Your task to perform on an android device: Open Google Chrome and click the shortcut for Amazon.com Image 0: 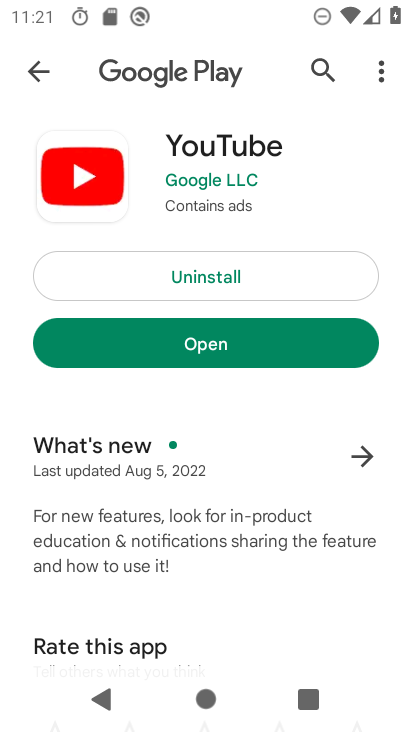
Step 0: press home button
Your task to perform on an android device: Open Google Chrome and click the shortcut for Amazon.com Image 1: 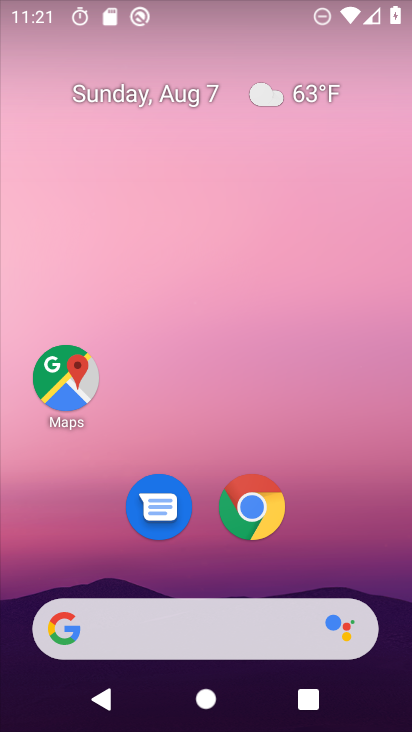
Step 1: drag from (325, 508) to (287, 49)
Your task to perform on an android device: Open Google Chrome and click the shortcut for Amazon.com Image 2: 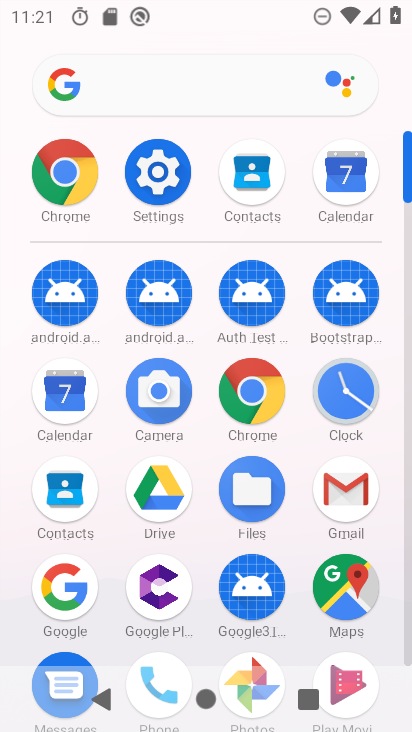
Step 2: click (246, 391)
Your task to perform on an android device: Open Google Chrome and click the shortcut for Amazon.com Image 3: 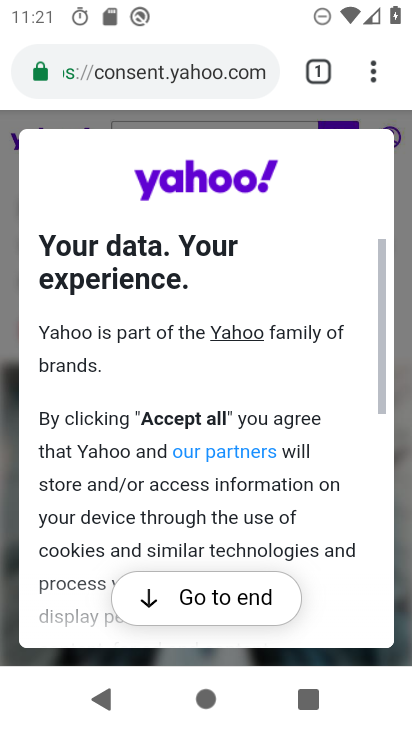
Step 3: click (244, 75)
Your task to perform on an android device: Open Google Chrome and click the shortcut for Amazon.com Image 4: 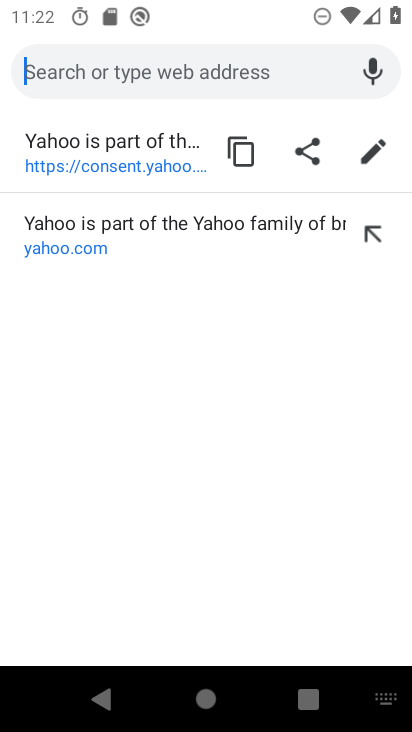
Step 4: press back button
Your task to perform on an android device: Open Google Chrome and click the shortcut for Amazon.com Image 5: 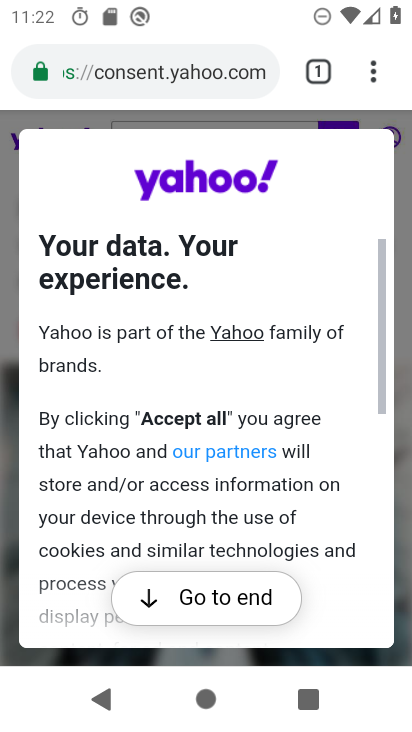
Step 5: click (381, 70)
Your task to perform on an android device: Open Google Chrome and click the shortcut for Amazon.com Image 6: 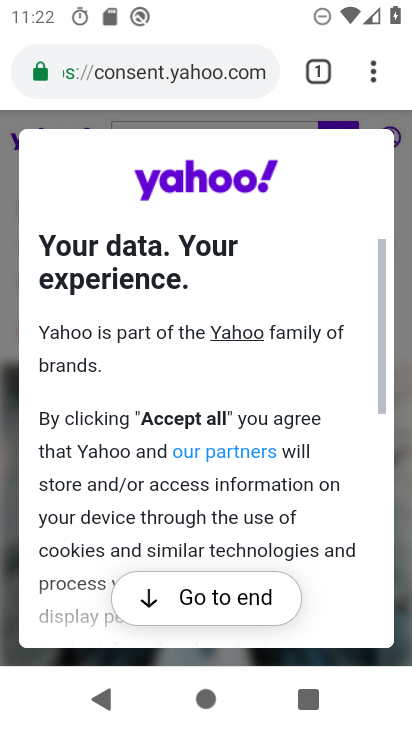
Step 6: drag from (377, 72) to (231, 144)
Your task to perform on an android device: Open Google Chrome and click the shortcut for Amazon.com Image 7: 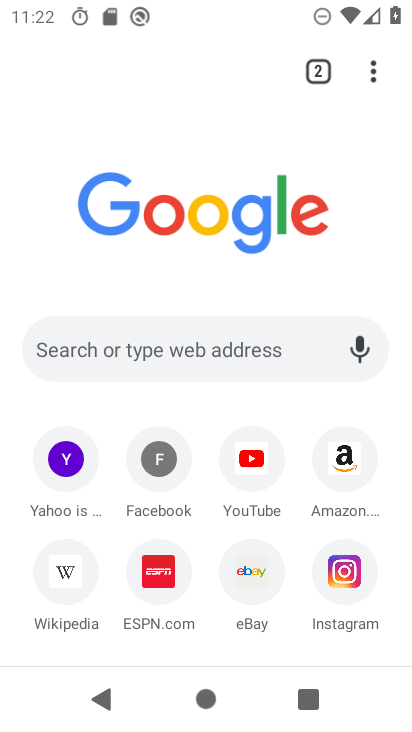
Step 7: click (336, 452)
Your task to perform on an android device: Open Google Chrome and click the shortcut for Amazon.com Image 8: 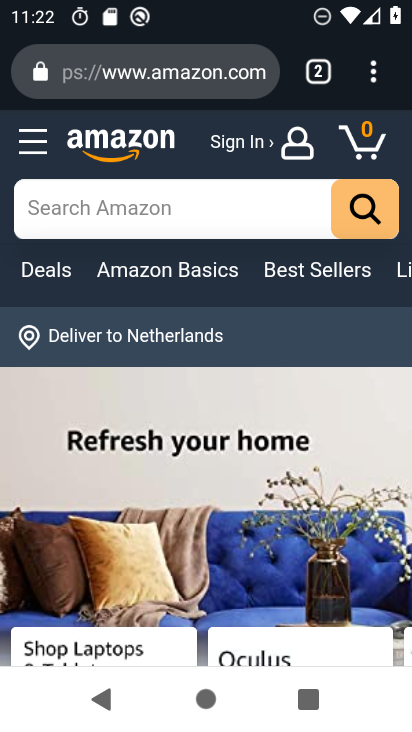
Step 8: task complete